Your task to perform on an android device: delete the emails in spam in the gmail app Image 0: 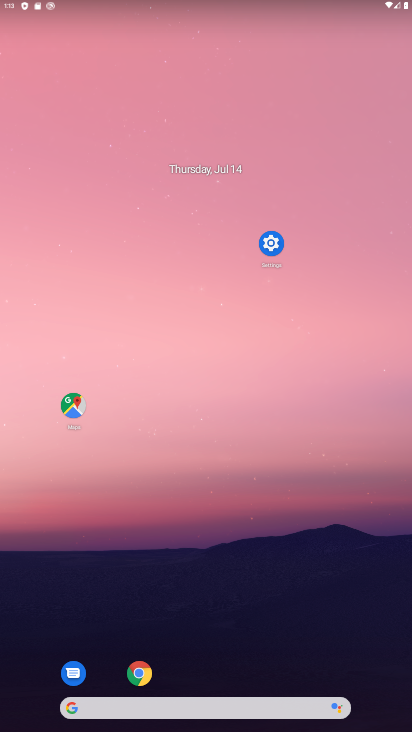
Step 0: drag from (288, 621) to (250, 104)
Your task to perform on an android device: delete the emails in spam in the gmail app Image 1: 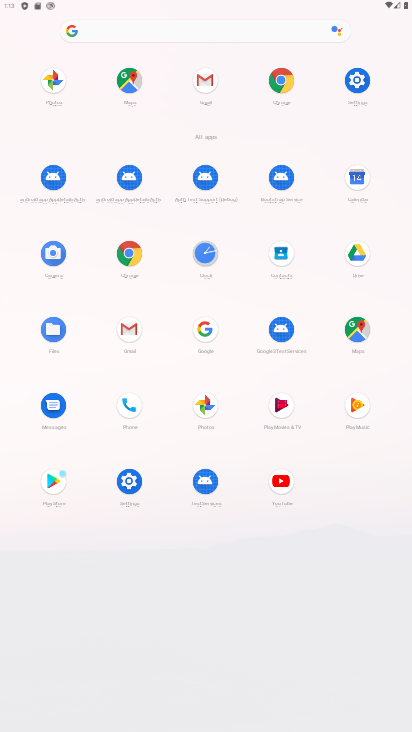
Step 1: drag from (120, 330) to (182, 231)
Your task to perform on an android device: delete the emails in spam in the gmail app Image 2: 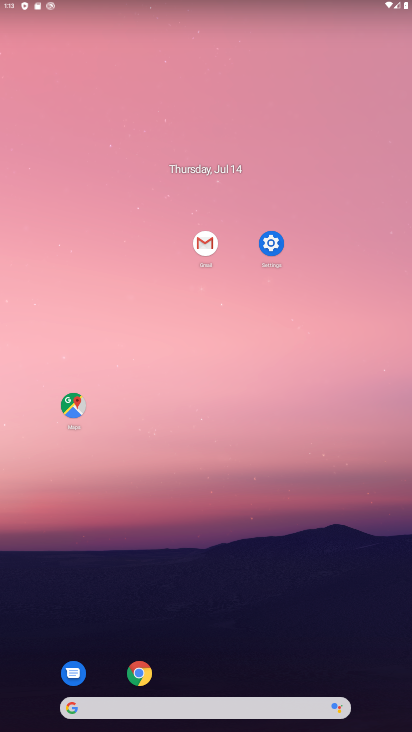
Step 2: click (216, 253)
Your task to perform on an android device: delete the emails in spam in the gmail app Image 3: 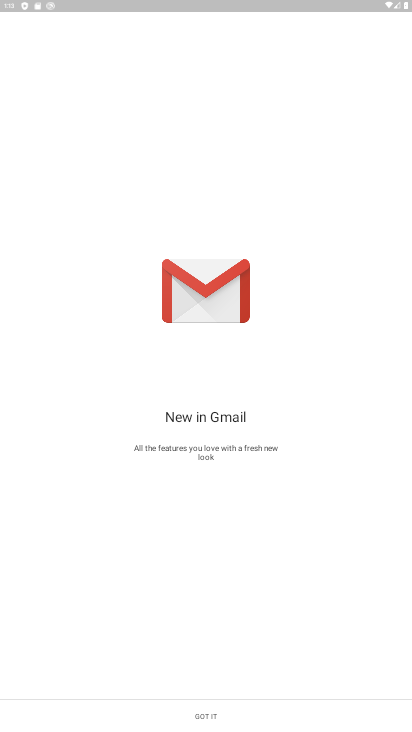
Step 3: click (263, 713)
Your task to perform on an android device: delete the emails in spam in the gmail app Image 4: 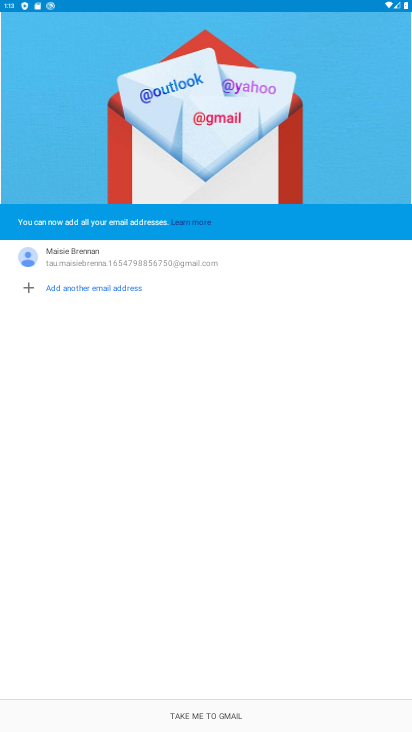
Step 4: click (239, 713)
Your task to perform on an android device: delete the emails in spam in the gmail app Image 5: 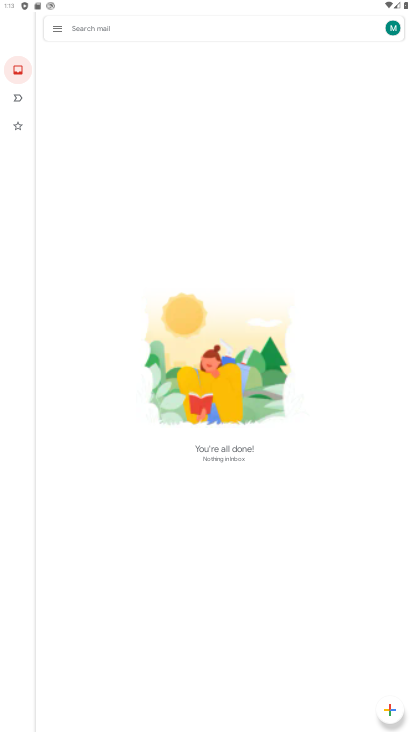
Step 5: click (56, 28)
Your task to perform on an android device: delete the emails in spam in the gmail app Image 6: 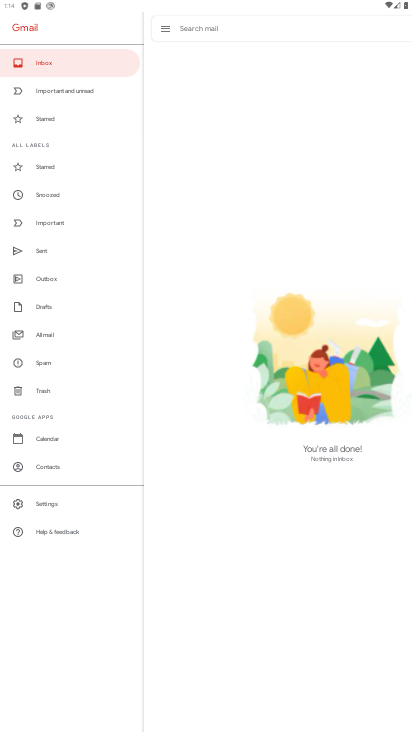
Step 6: click (84, 339)
Your task to perform on an android device: delete the emails in spam in the gmail app Image 7: 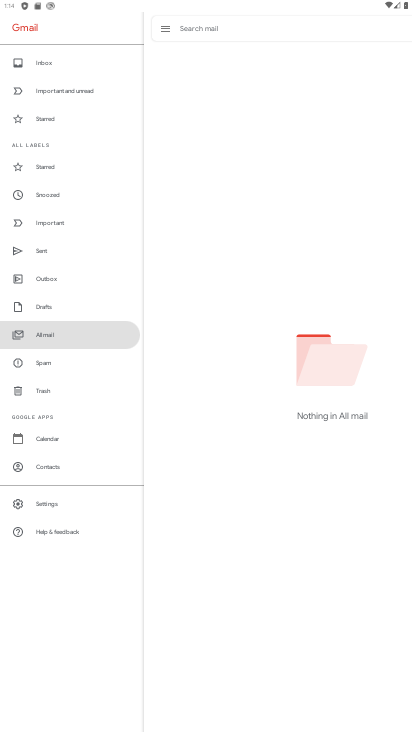
Step 7: task complete